Your task to perform on an android device: Open settings Image 0: 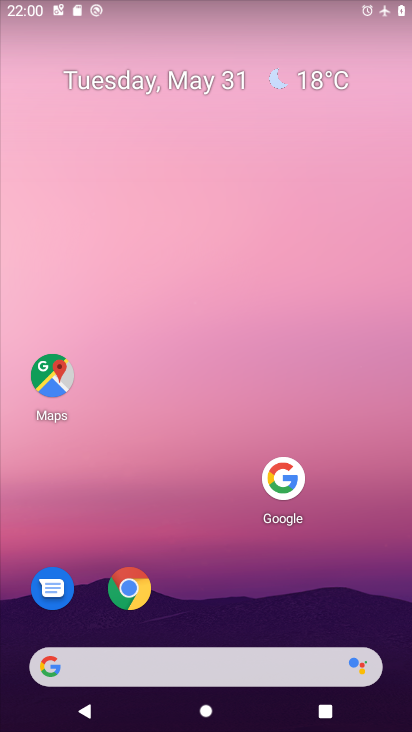
Step 0: press home button
Your task to perform on an android device: Open settings Image 1: 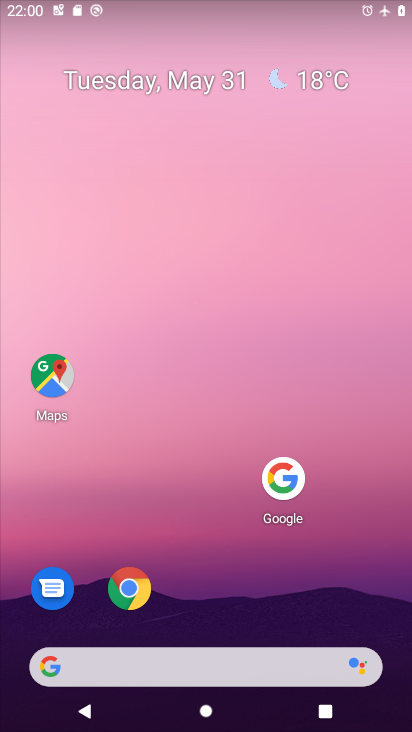
Step 1: drag from (172, 676) to (277, 174)
Your task to perform on an android device: Open settings Image 2: 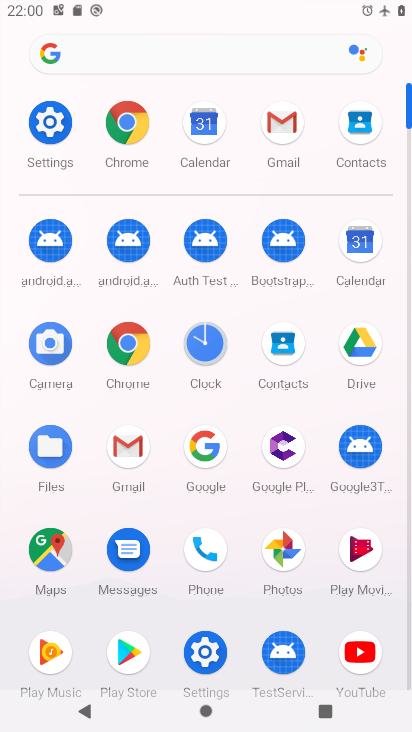
Step 2: click (45, 124)
Your task to perform on an android device: Open settings Image 3: 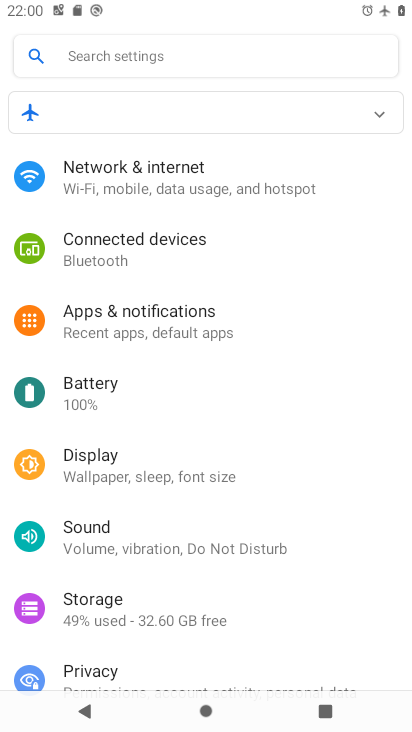
Step 3: task complete